Your task to perform on an android device: Open maps Image 0: 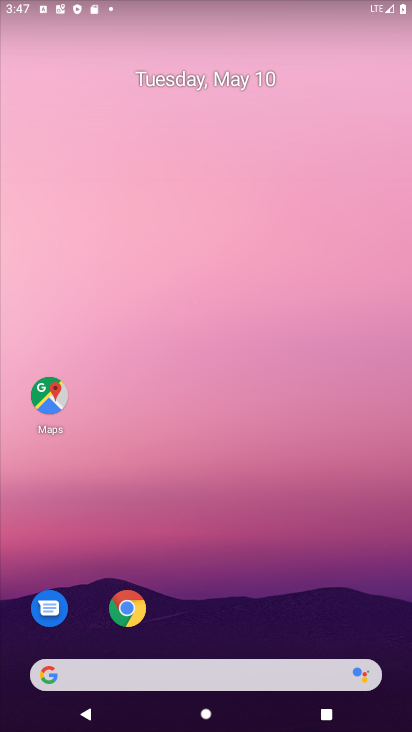
Step 0: click (49, 393)
Your task to perform on an android device: Open maps Image 1: 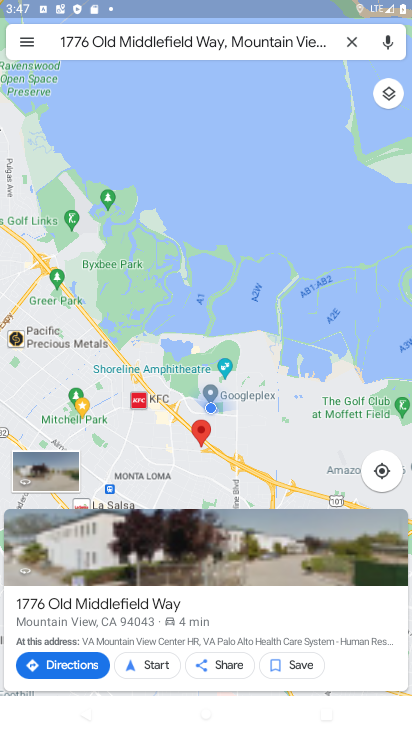
Step 1: task complete